Your task to perform on an android device: install app "Viber Messenger" Image 0: 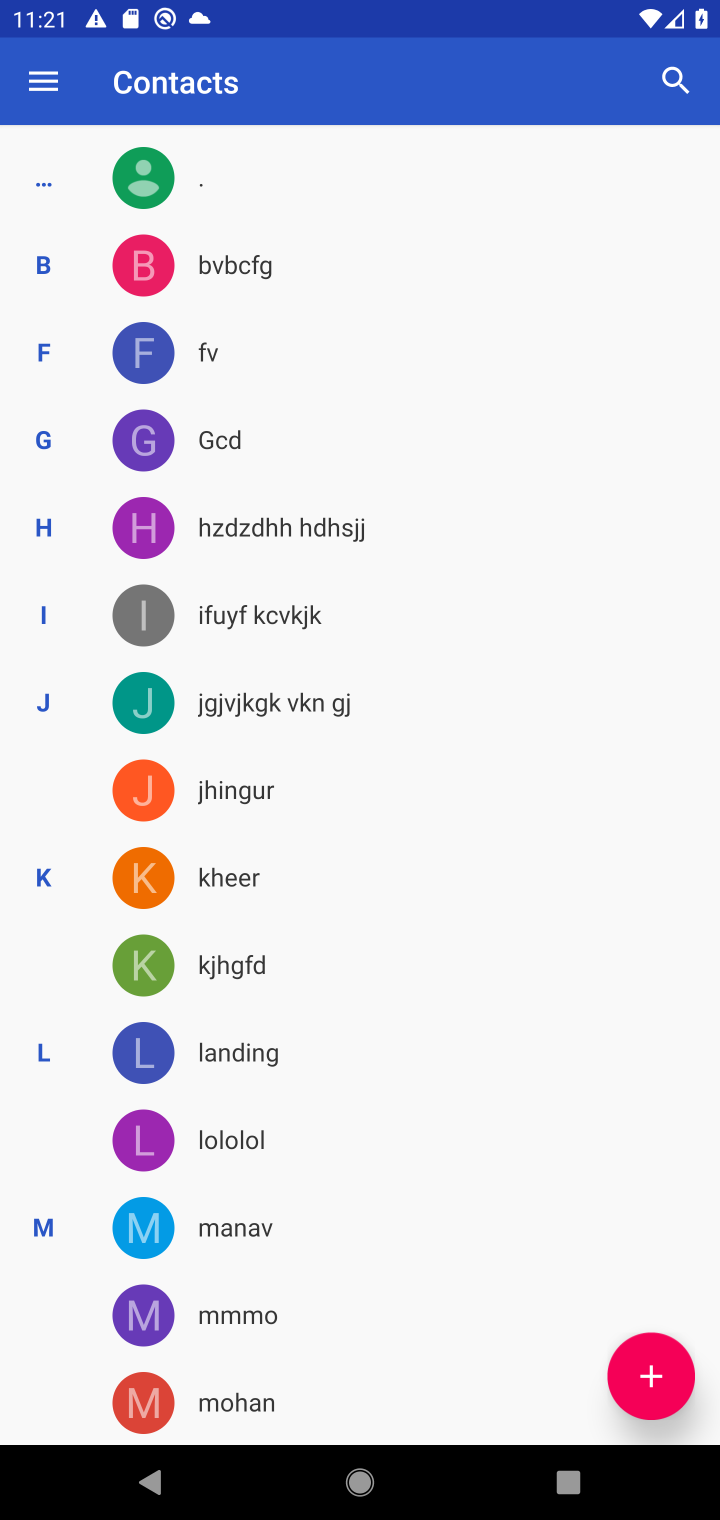
Step 0: press home button
Your task to perform on an android device: install app "Viber Messenger" Image 1: 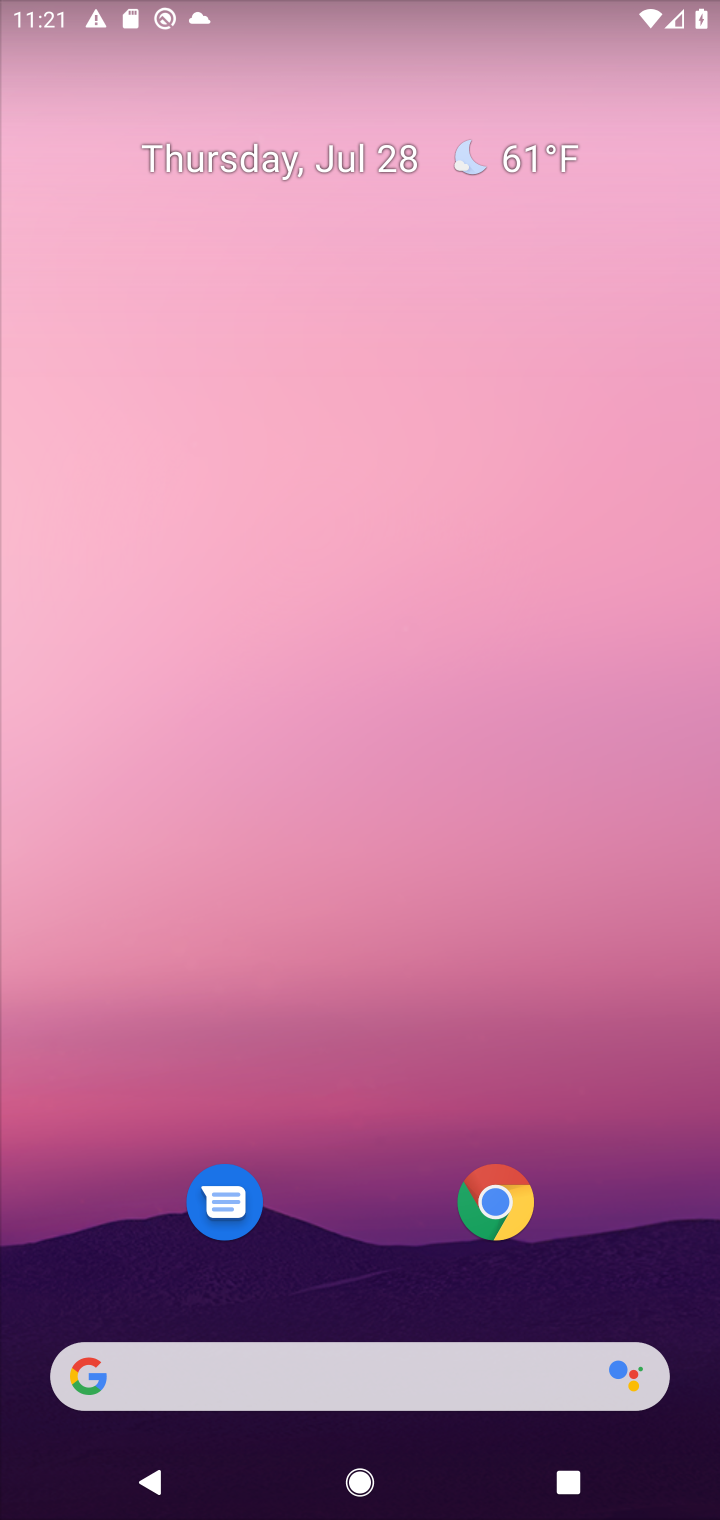
Step 1: click (305, 1349)
Your task to perform on an android device: install app "Viber Messenger" Image 2: 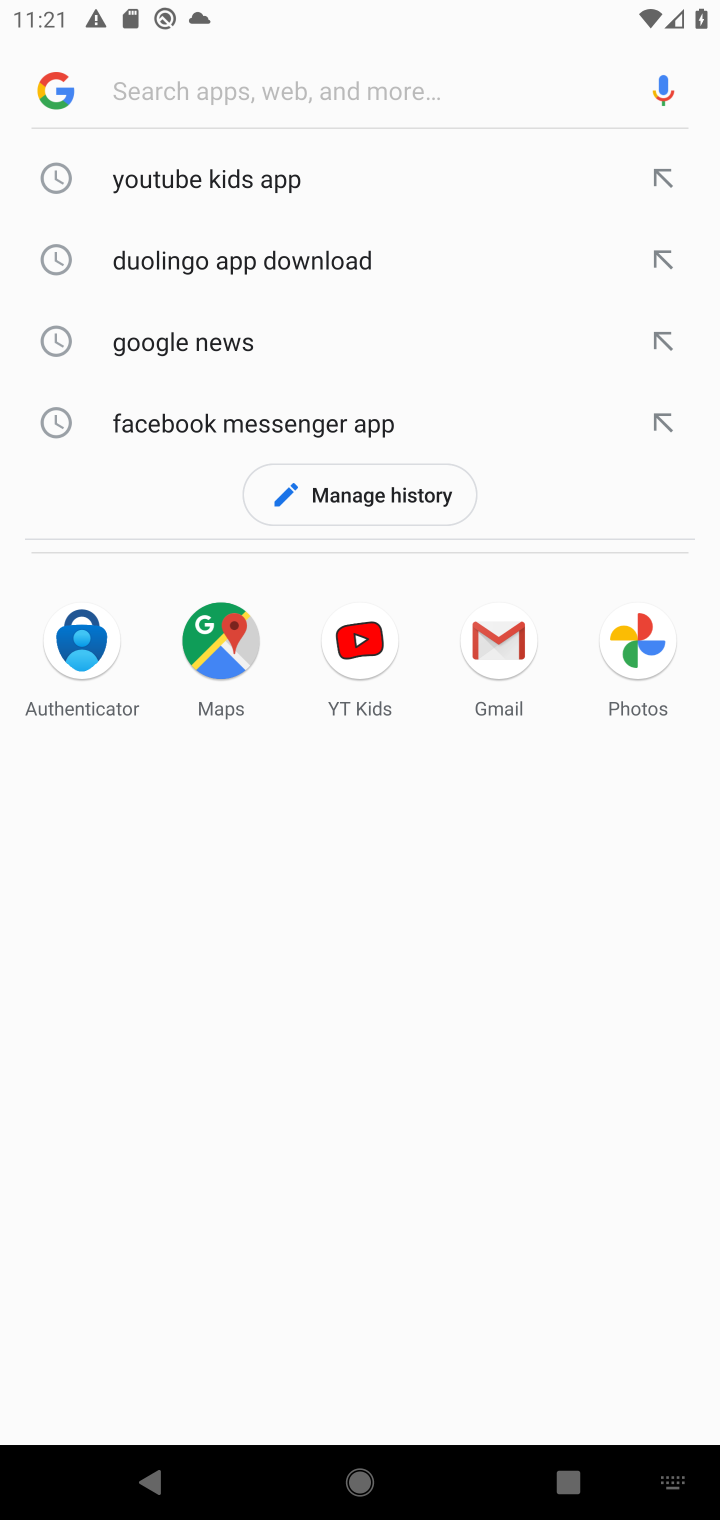
Step 2: type "viber messaqnger"
Your task to perform on an android device: install app "Viber Messenger" Image 3: 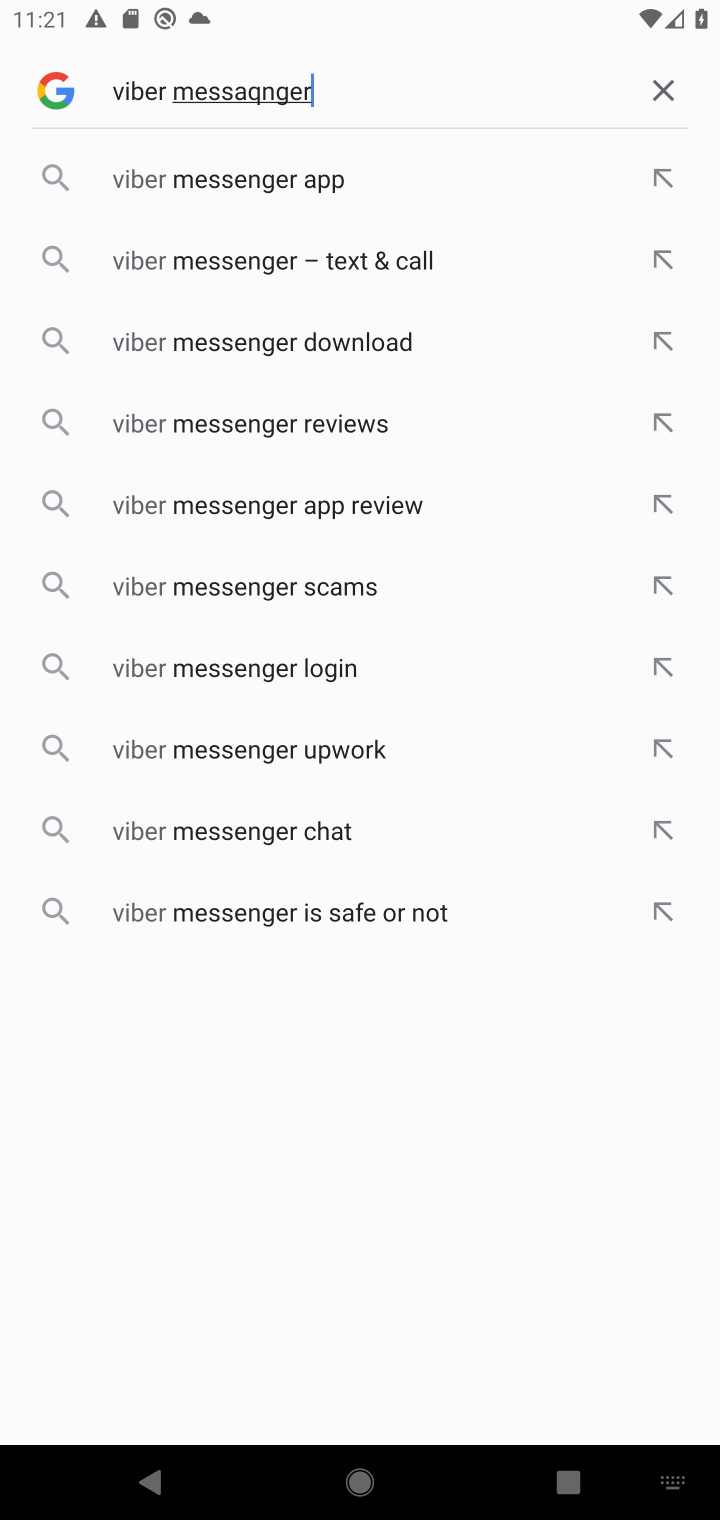
Step 3: click (246, 187)
Your task to perform on an android device: install app "Viber Messenger" Image 4: 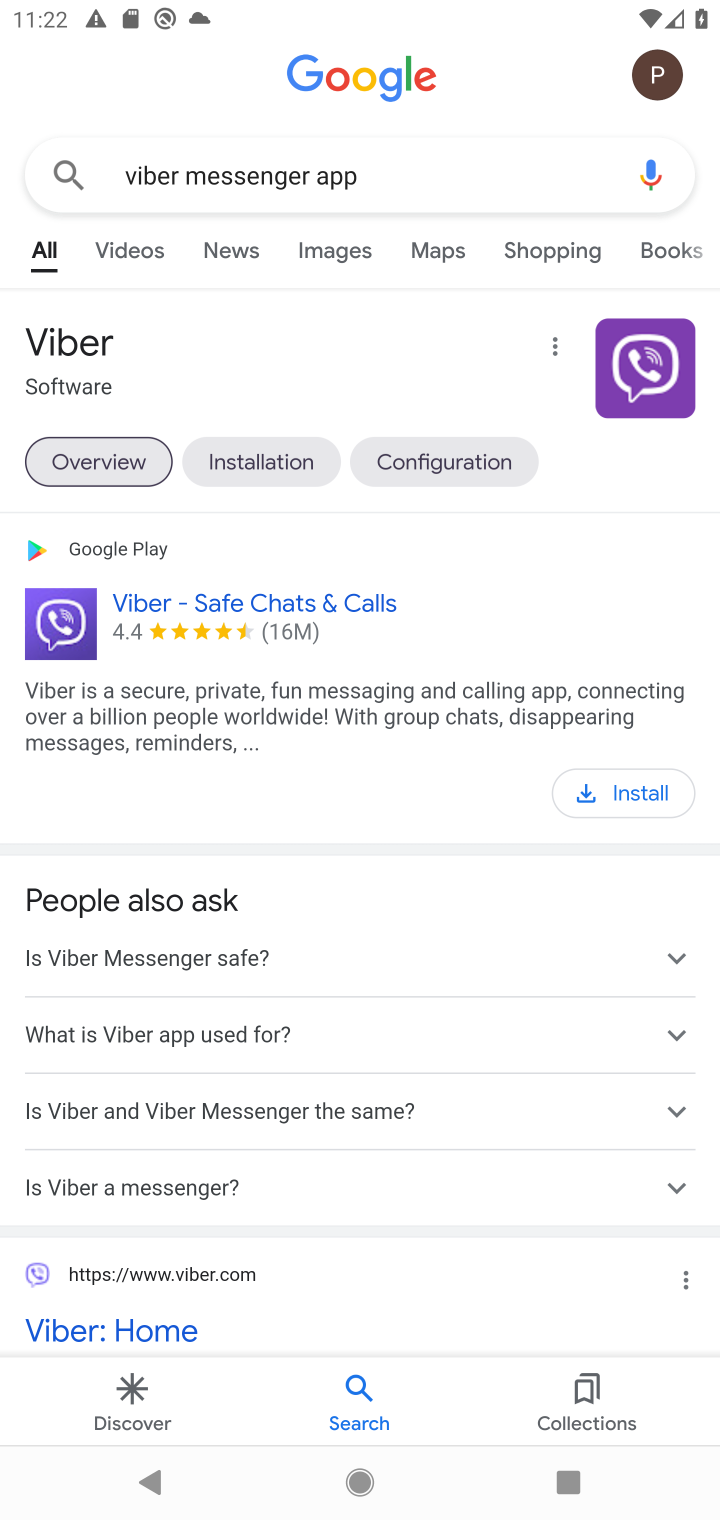
Step 4: click (614, 789)
Your task to perform on an android device: install app "Viber Messenger" Image 5: 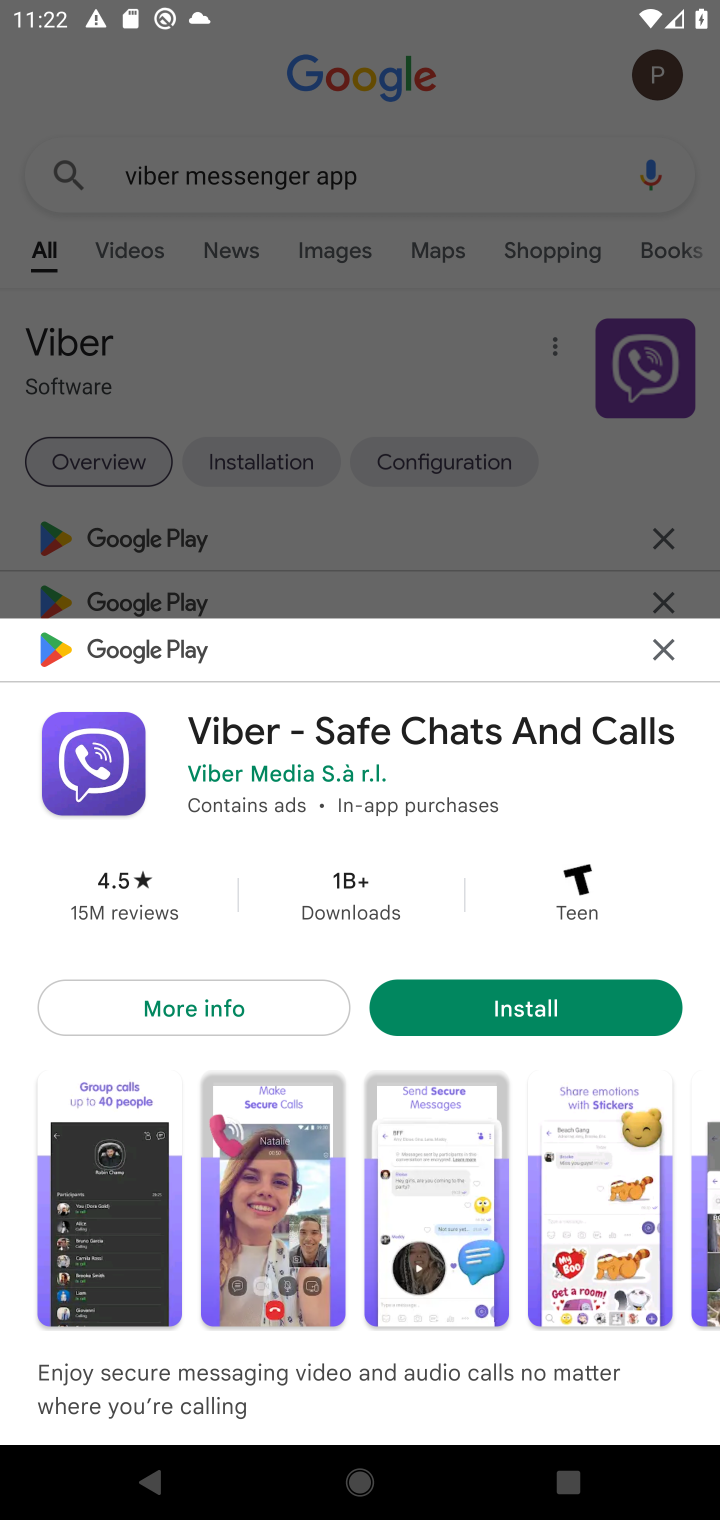
Step 5: click (533, 1026)
Your task to perform on an android device: install app "Viber Messenger" Image 6: 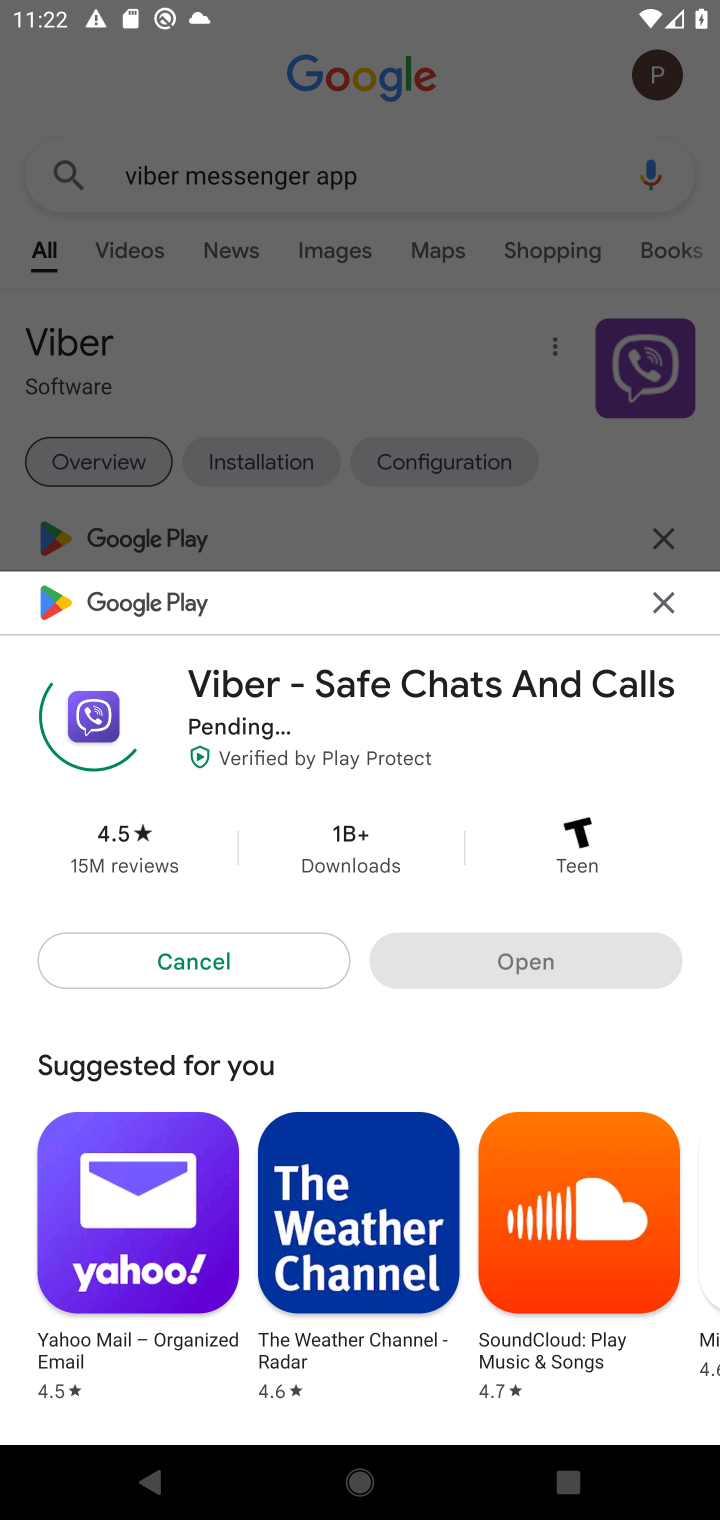
Step 6: task complete